Your task to perform on an android device: Open settings on Google Maps Image 0: 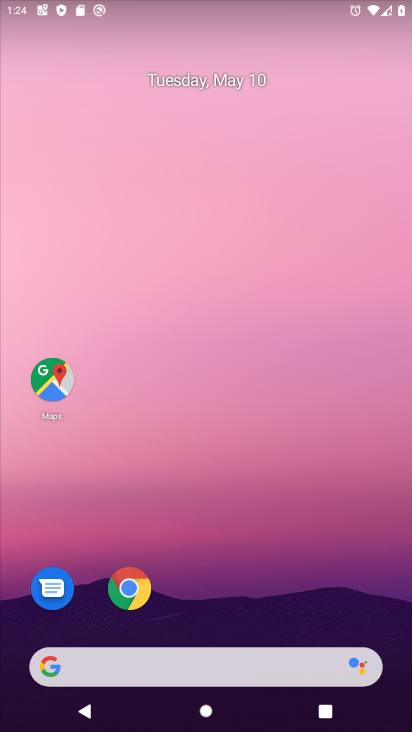
Step 0: drag from (269, 596) to (285, 231)
Your task to perform on an android device: Open settings on Google Maps Image 1: 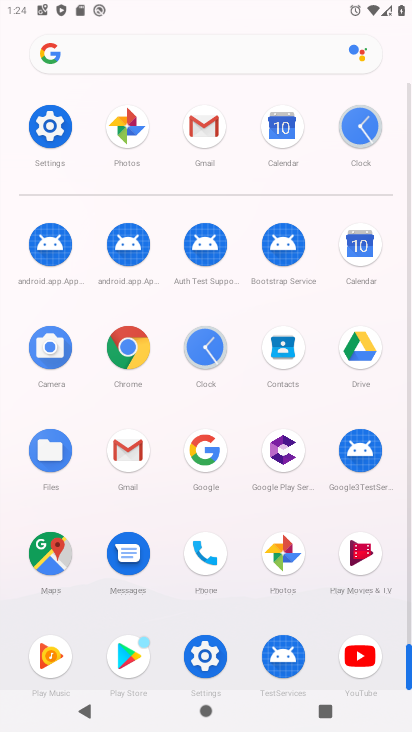
Step 1: click (45, 536)
Your task to perform on an android device: Open settings on Google Maps Image 2: 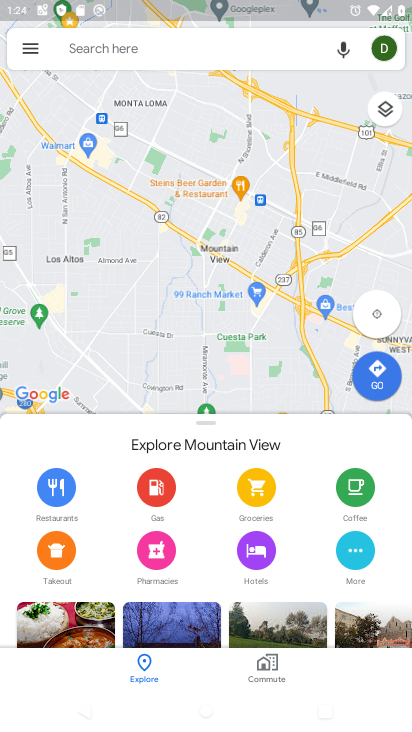
Step 2: click (26, 50)
Your task to perform on an android device: Open settings on Google Maps Image 3: 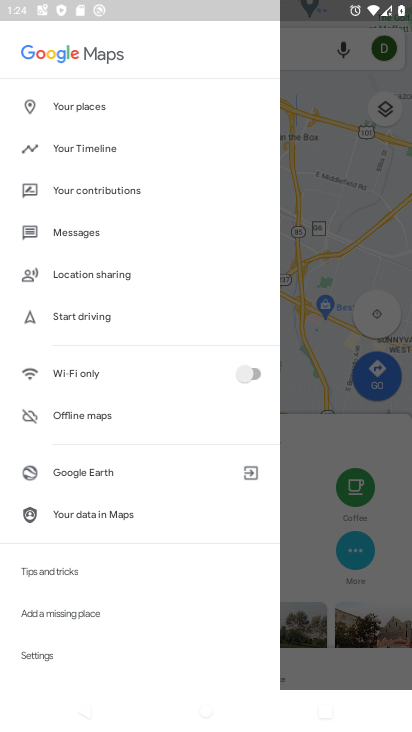
Step 3: click (66, 654)
Your task to perform on an android device: Open settings on Google Maps Image 4: 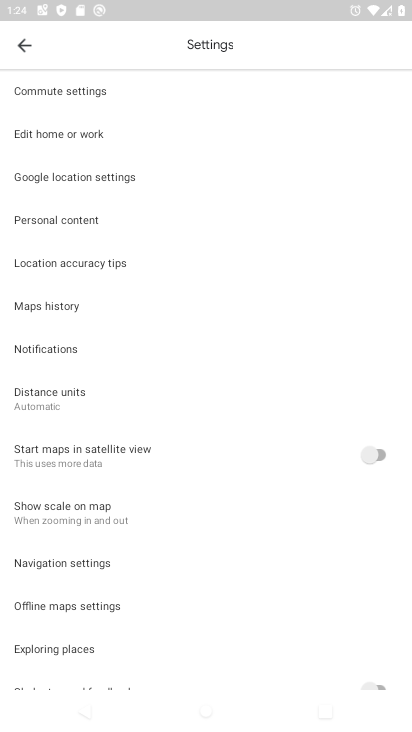
Step 4: task complete